Your task to perform on an android device: View the shopping cart on walmart. Search for "macbook pro 13 inch" on walmart, select the first entry, and add it to the cart. Image 0: 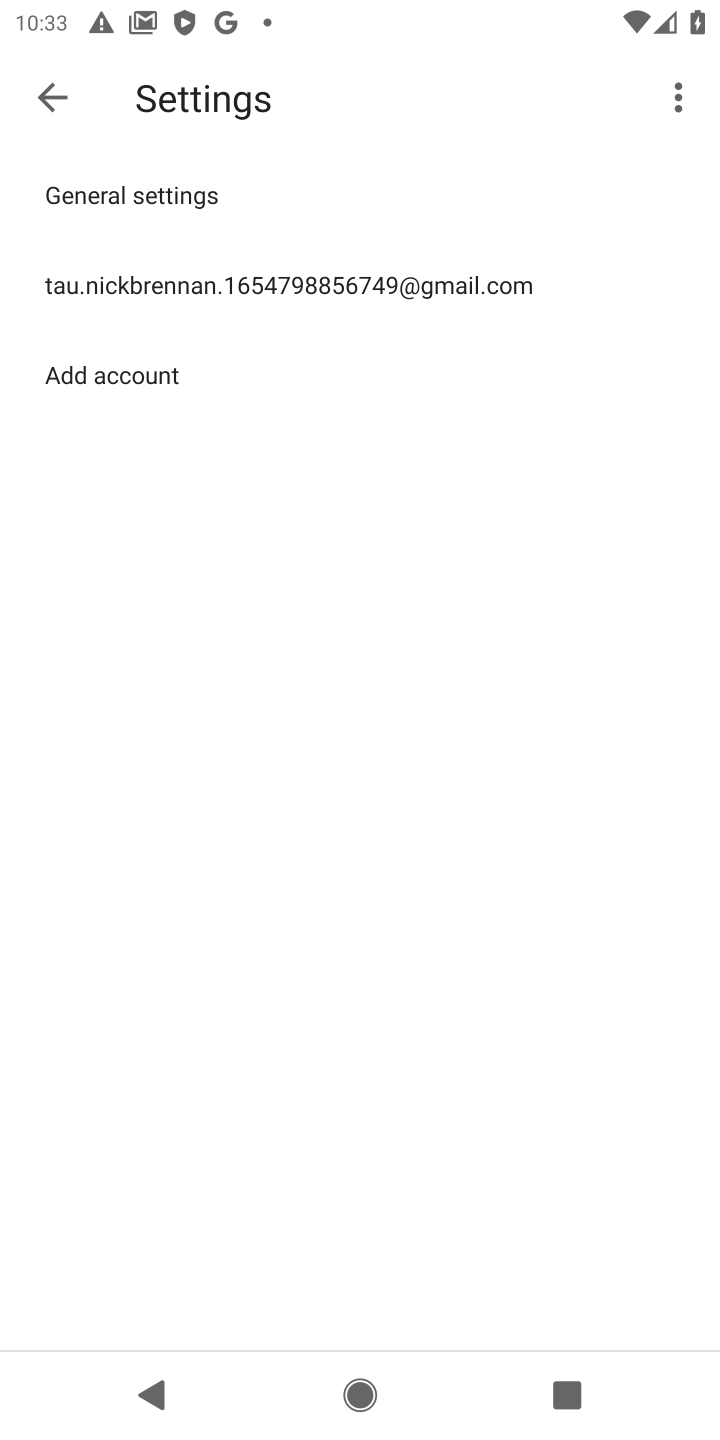
Step 0: press home button
Your task to perform on an android device: View the shopping cart on walmart. Search for "macbook pro 13 inch" on walmart, select the first entry, and add it to the cart. Image 1: 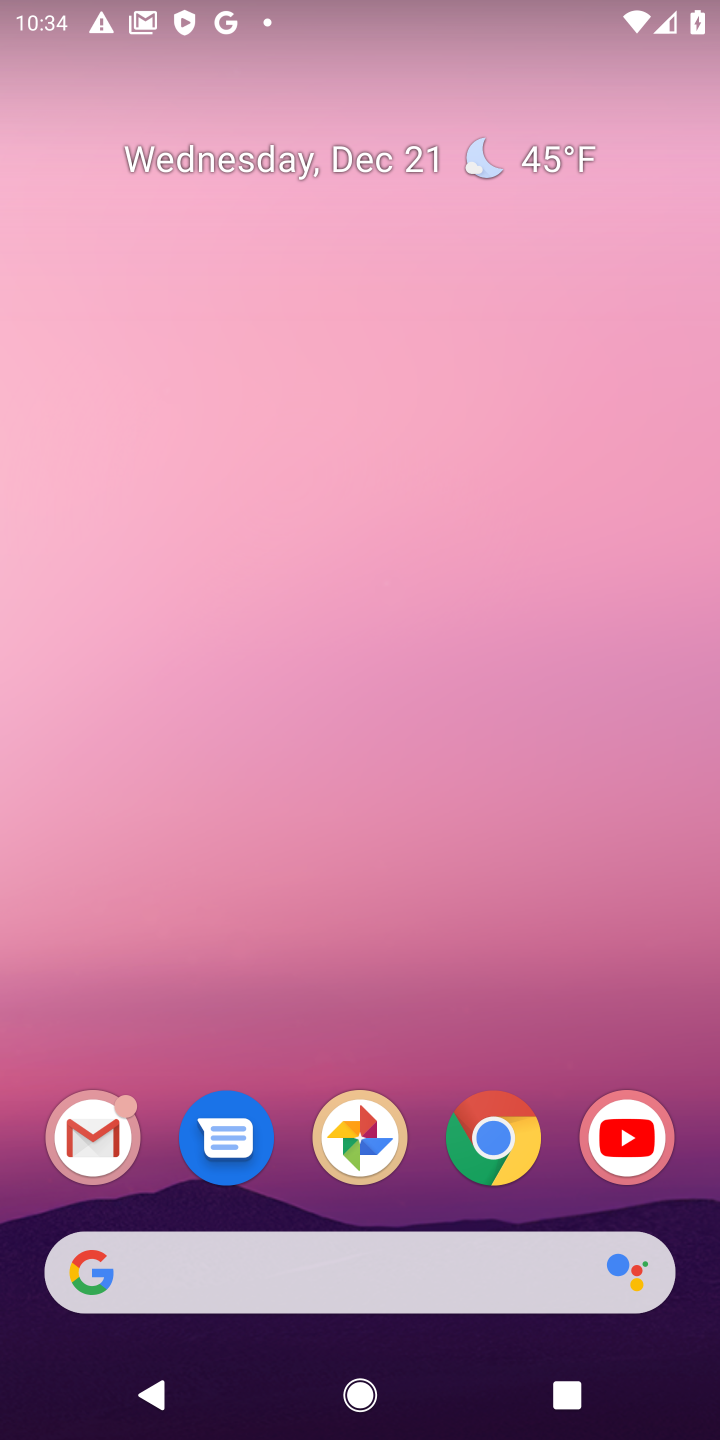
Step 1: click (493, 1141)
Your task to perform on an android device: View the shopping cart on walmart. Search for "macbook pro 13 inch" on walmart, select the first entry, and add it to the cart. Image 2: 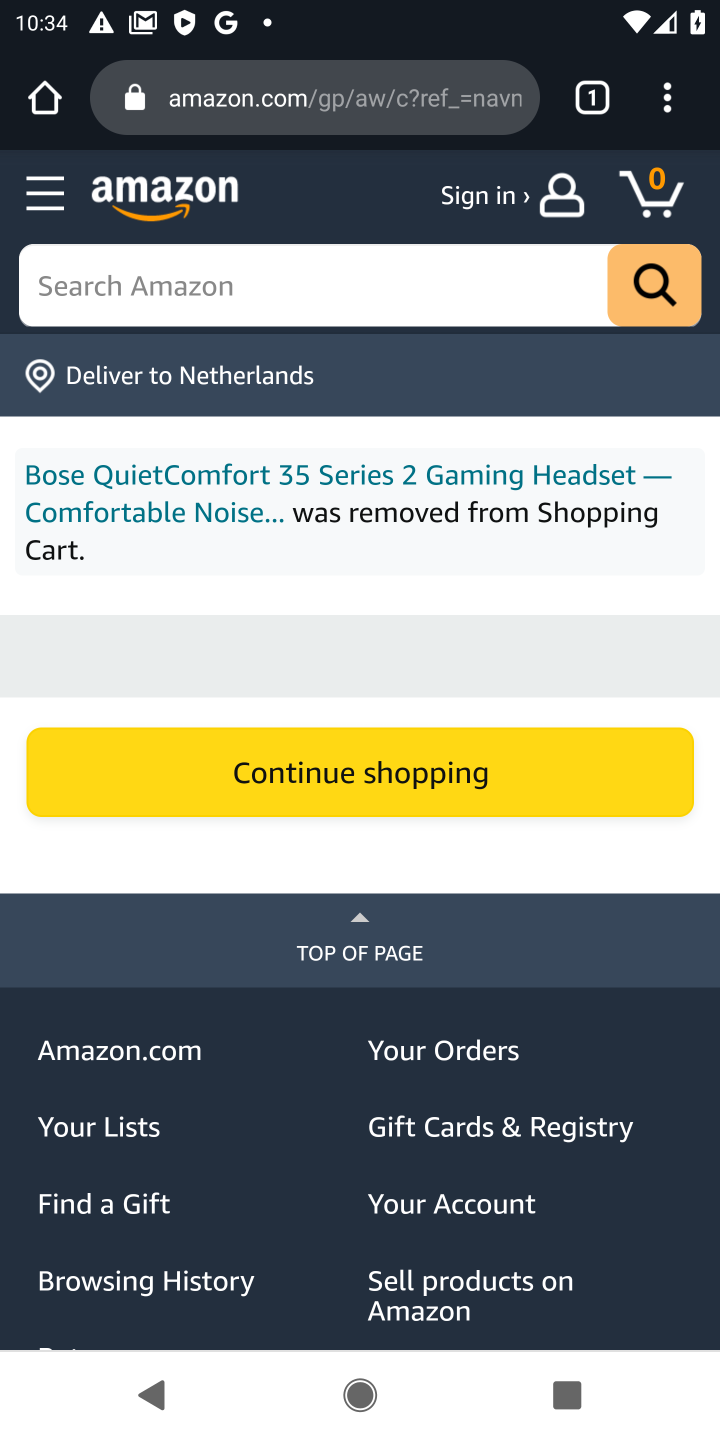
Step 2: click (291, 106)
Your task to perform on an android device: View the shopping cart on walmart. Search for "macbook pro 13 inch" on walmart, select the first entry, and add it to the cart. Image 3: 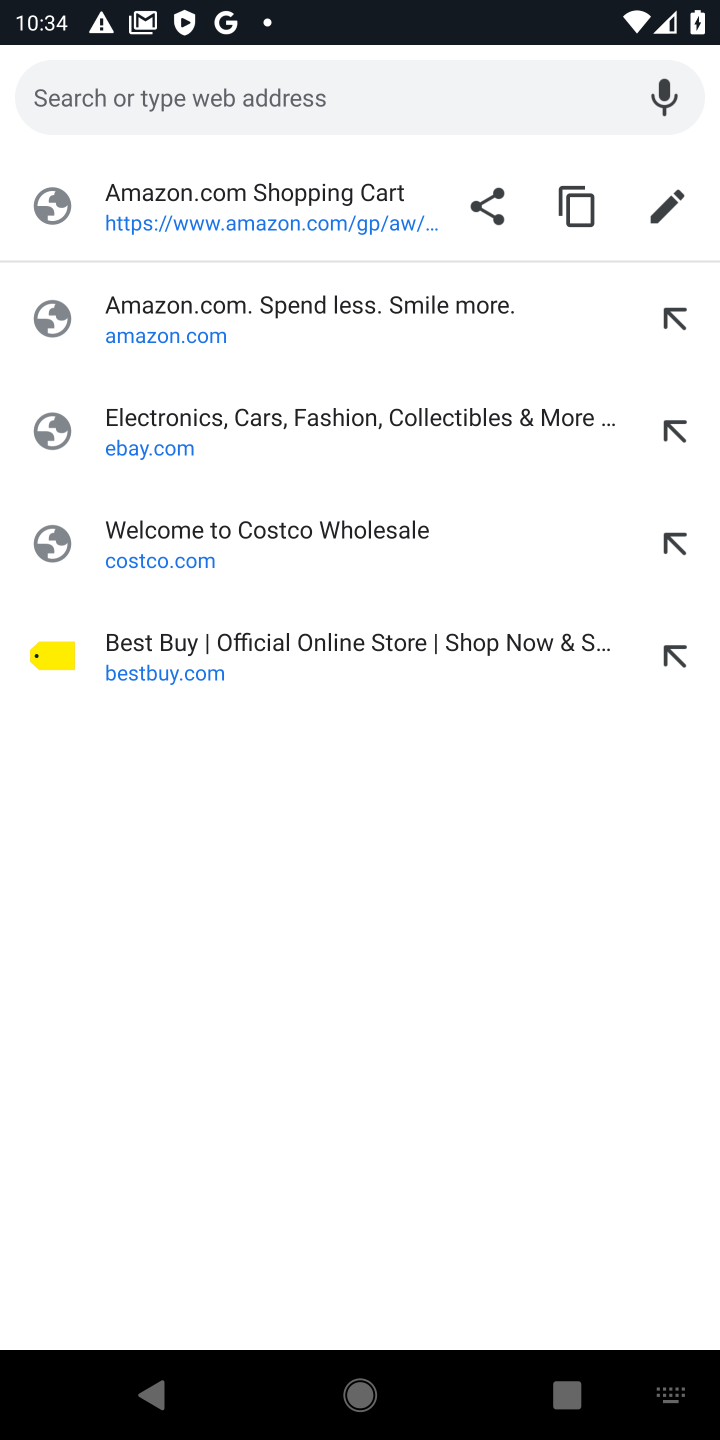
Step 3: type "walmart.com"
Your task to perform on an android device: View the shopping cart on walmart. Search for "macbook pro 13 inch" on walmart, select the first entry, and add it to the cart. Image 4: 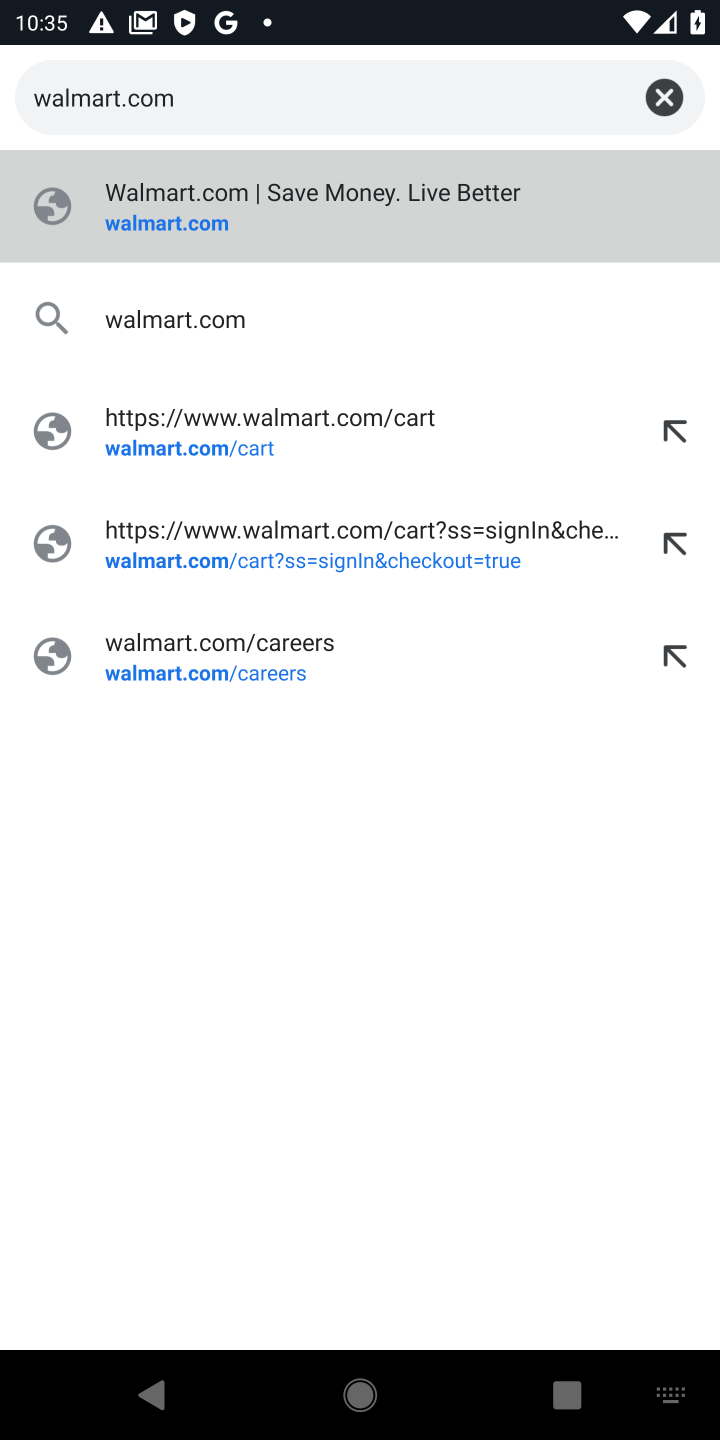
Step 4: click (188, 233)
Your task to perform on an android device: View the shopping cart on walmart. Search for "macbook pro 13 inch" on walmart, select the first entry, and add it to the cart. Image 5: 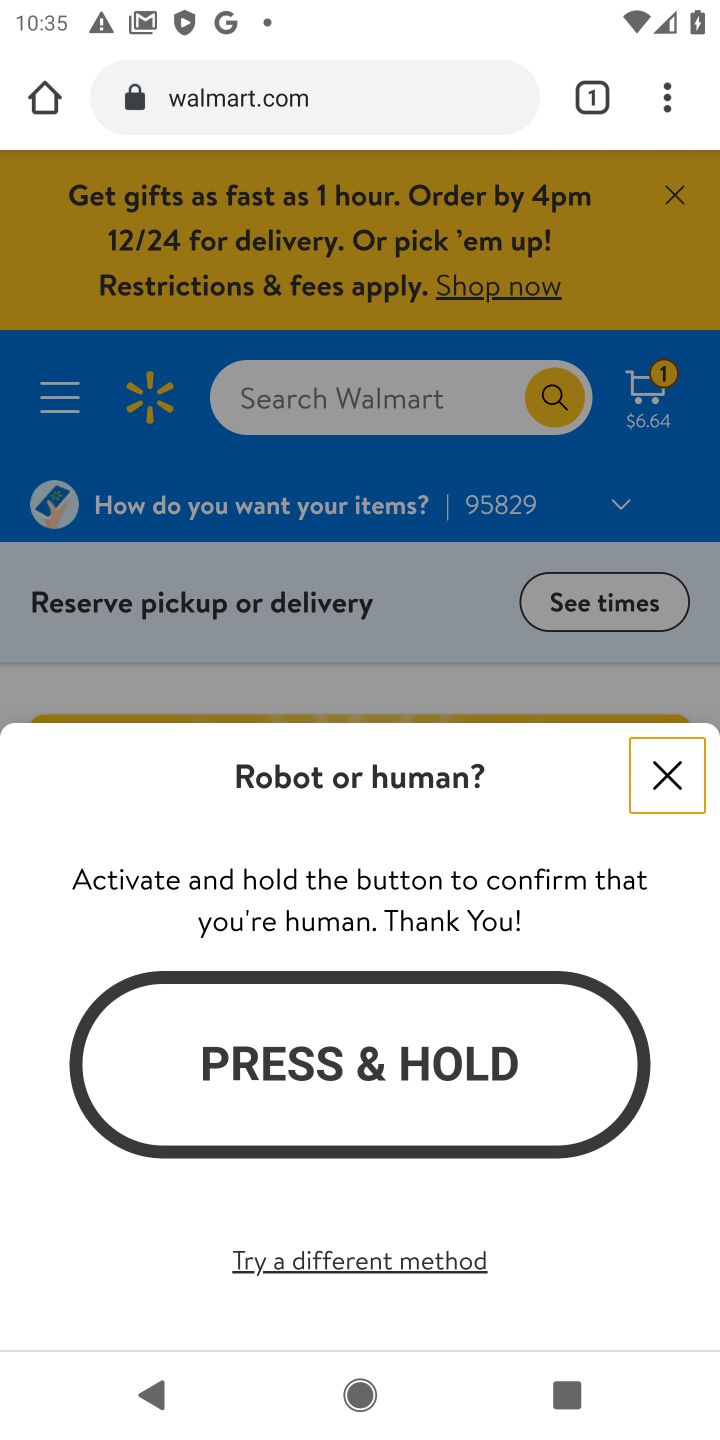
Step 5: click (314, 1273)
Your task to perform on an android device: View the shopping cart on walmart. Search for "macbook pro 13 inch" on walmart, select the first entry, and add it to the cart. Image 6: 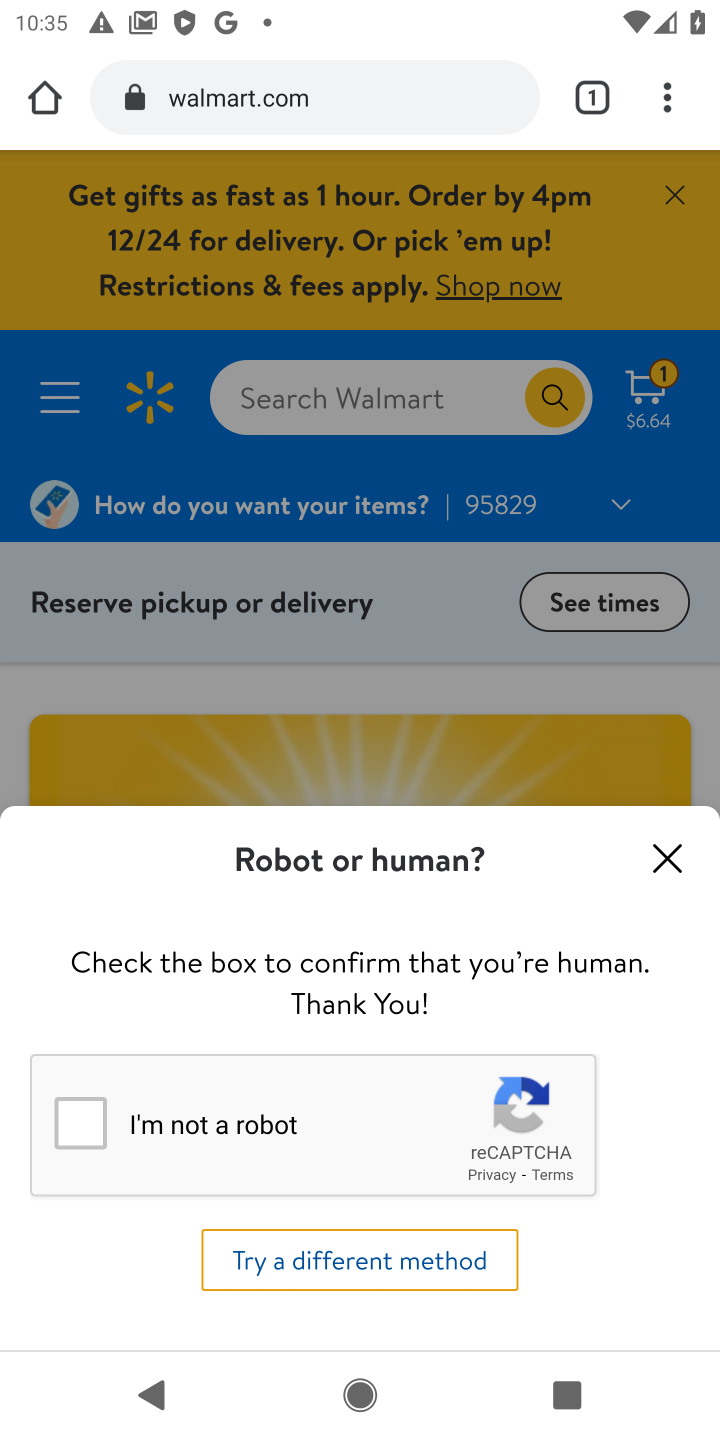
Step 6: click (92, 1124)
Your task to perform on an android device: View the shopping cart on walmart. Search for "macbook pro 13 inch" on walmart, select the first entry, and add it to the cart. Image 7: 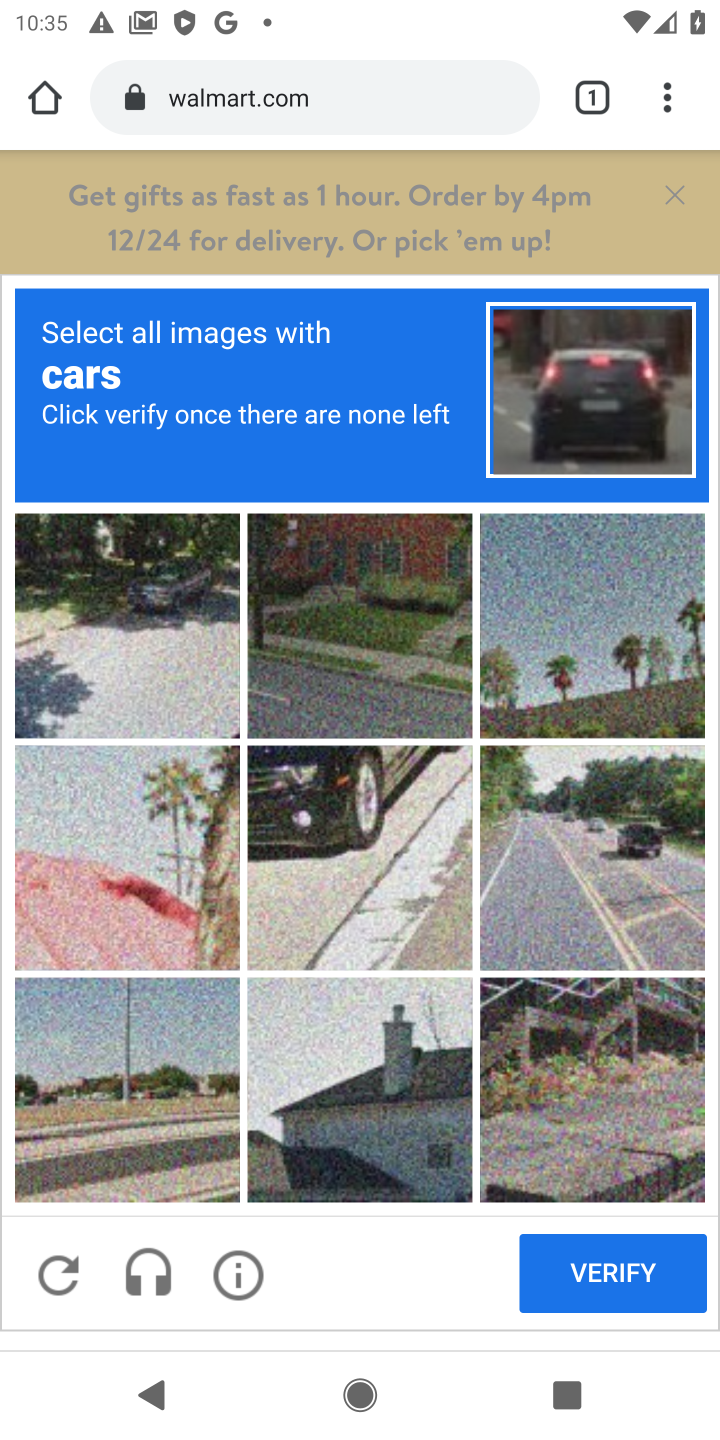
Step 7: click (176, 608)
Your task to perform on an android device: View the shopping cart on walmart. Search for "macbook pro 13 inch" on walmart, select the first entry, and add it to the cart. Image 8: 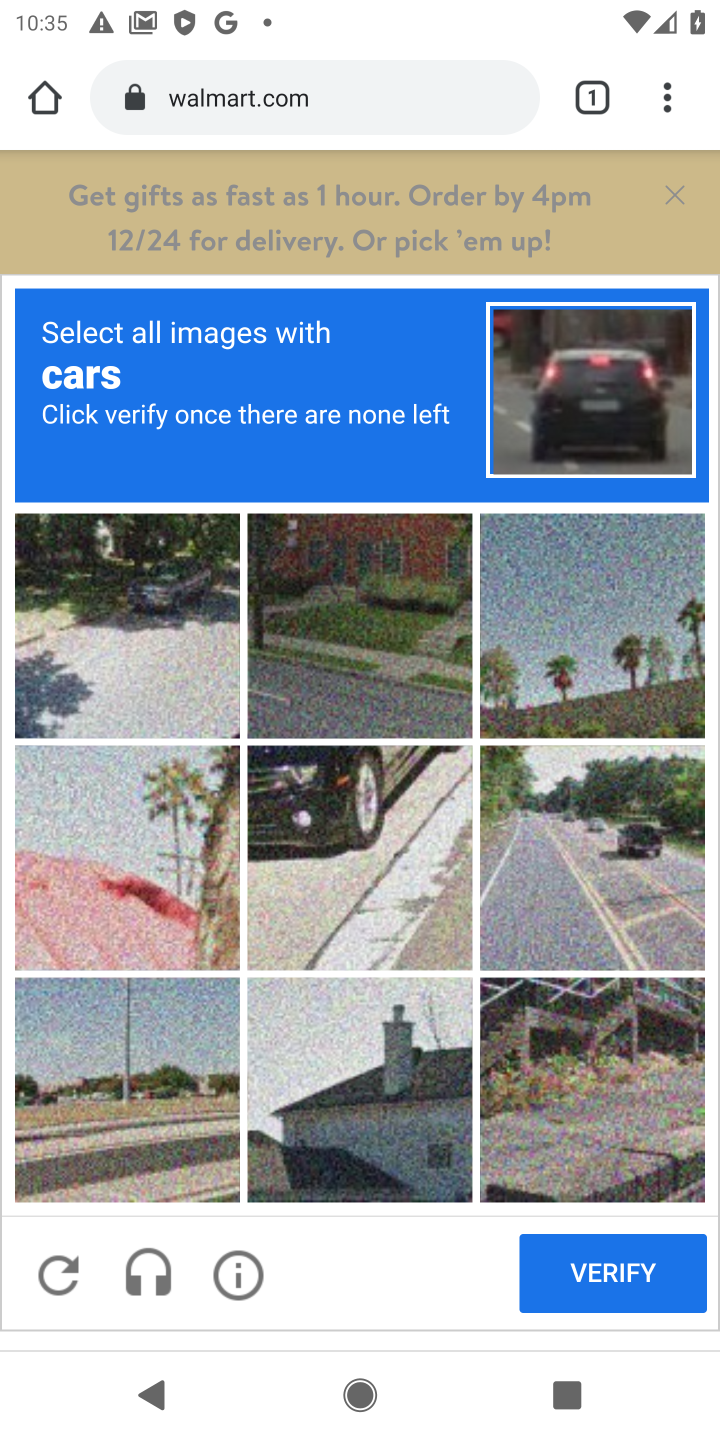
Step 8: click (329, 844)
Your task to perform on an android device: View the shopping cart on walmart. Search for "macbook pro 13 inch" on walmart, select the first entry, and add it to the cart. Image 9: 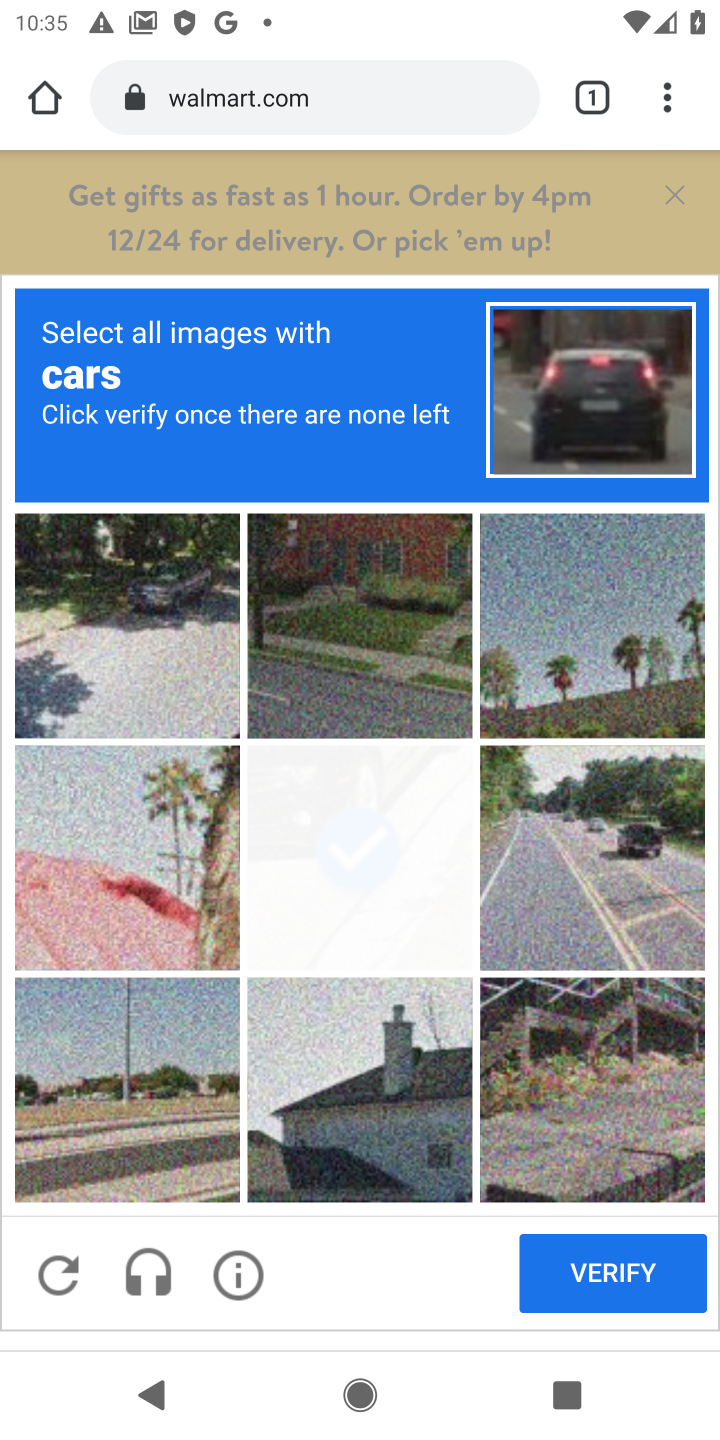
Step 9: click (135, 587)
Your task to perform on an android device: View the shopping cart on walmart. Search for "macbook pro 13 inch" on walmart, select the first entry, and add it to the cart. Image 10: 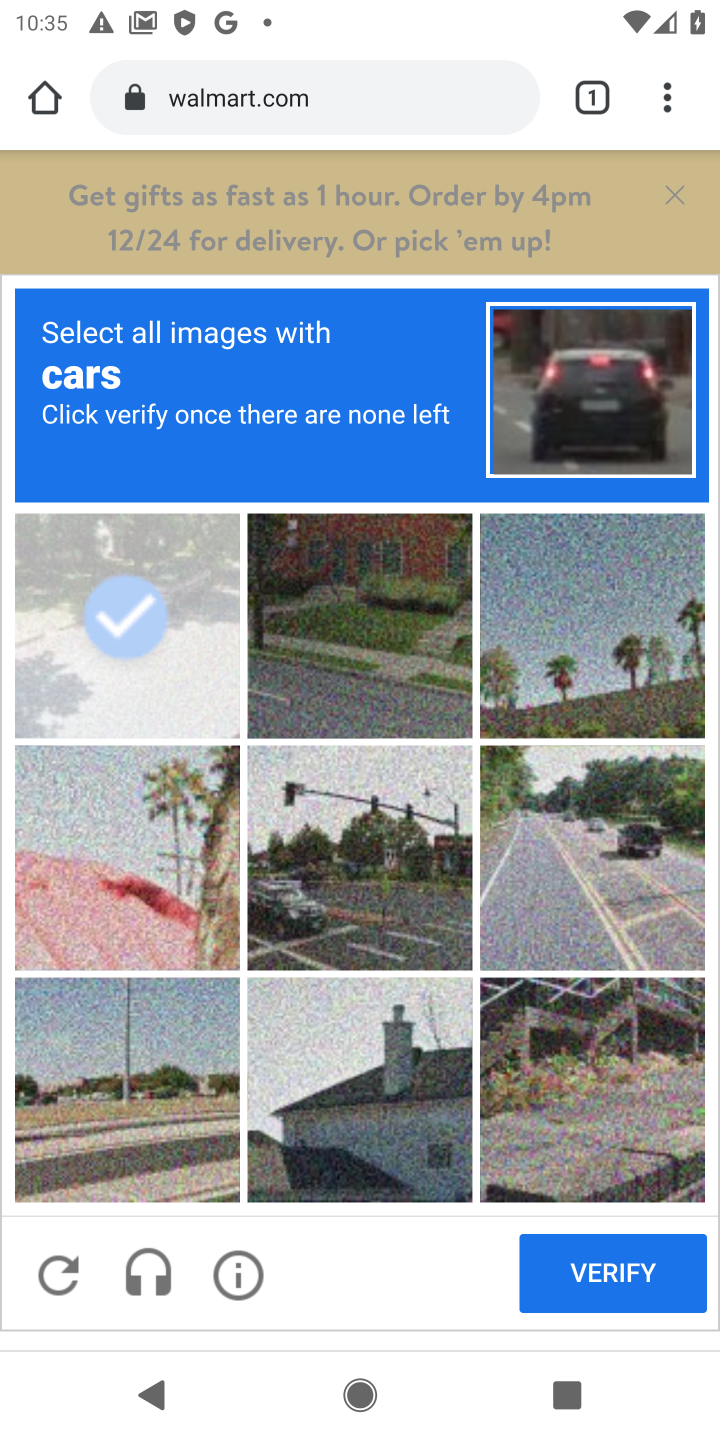
Step 10: click (658, 849)
Your task to perform on an android device: View the shopping cart on walmart. Search for "macbook pro 13 inch" on walmart, select the first entry, and add it to the cart. Image 11: 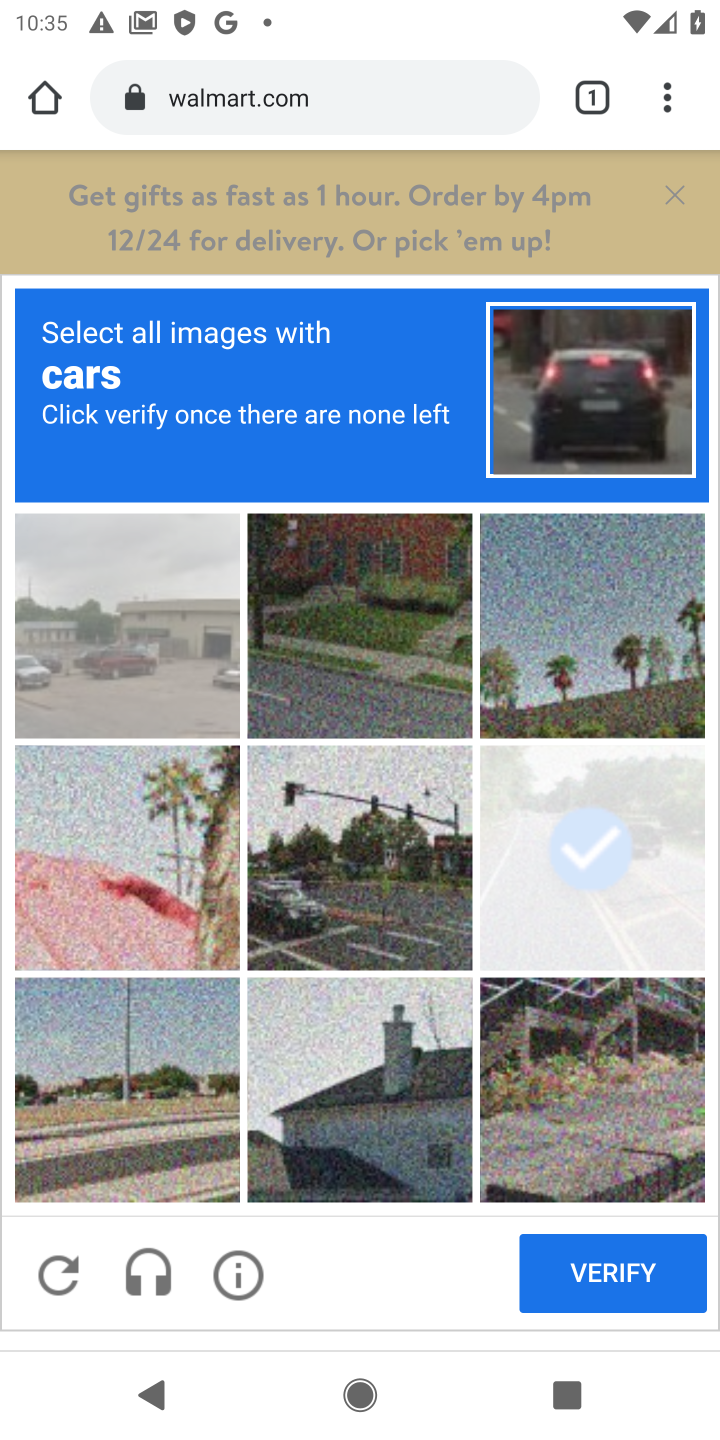
Step 11: click (315, 896)
Your task to perform on an android device: View the shopping cart on walmart. Search for "macbook pro 13 inch" on walmart, select the first entry, and add it to the cart. Image 12: 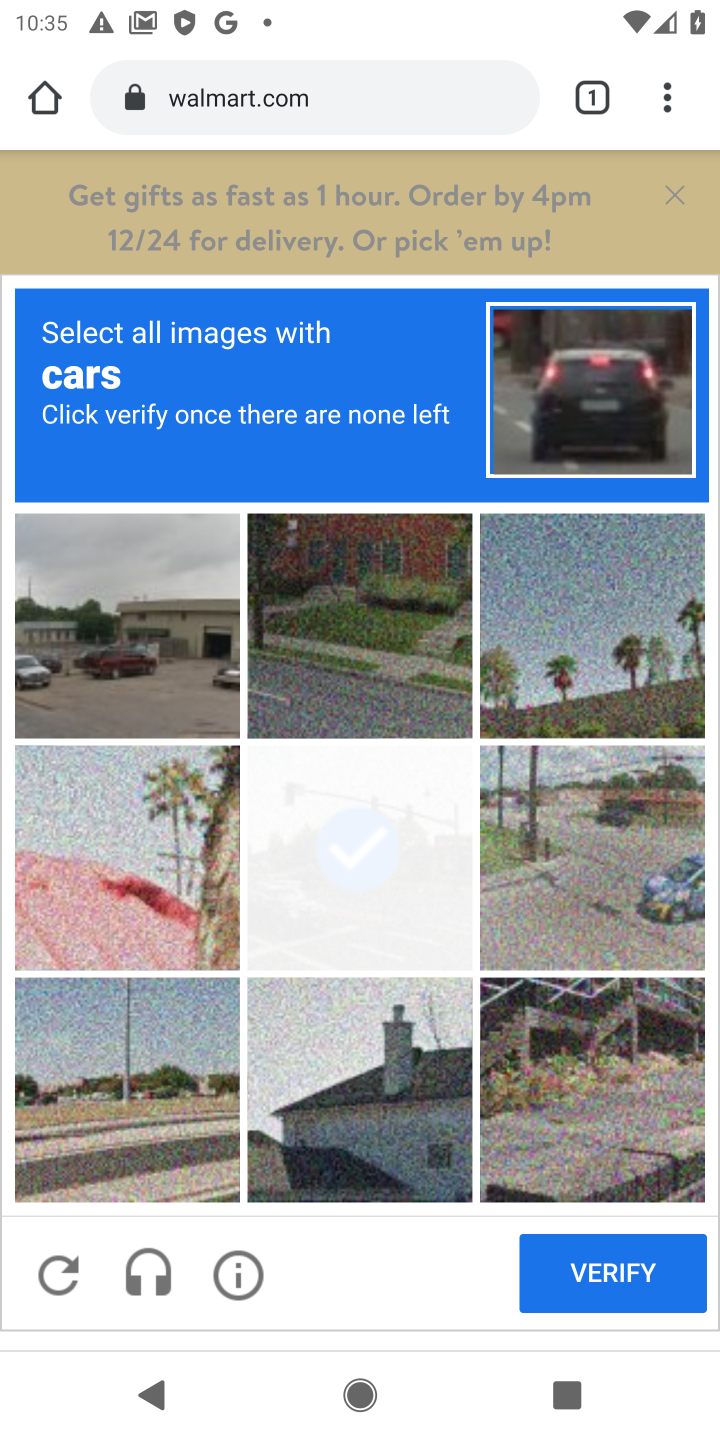
Step 12: click (74, 650)
Your task to perform on an android device: View the shopping cart on walmart. Search for "macbook pro 13 inch" on walmart, select the first entry, and add it to the cart. Image 13: 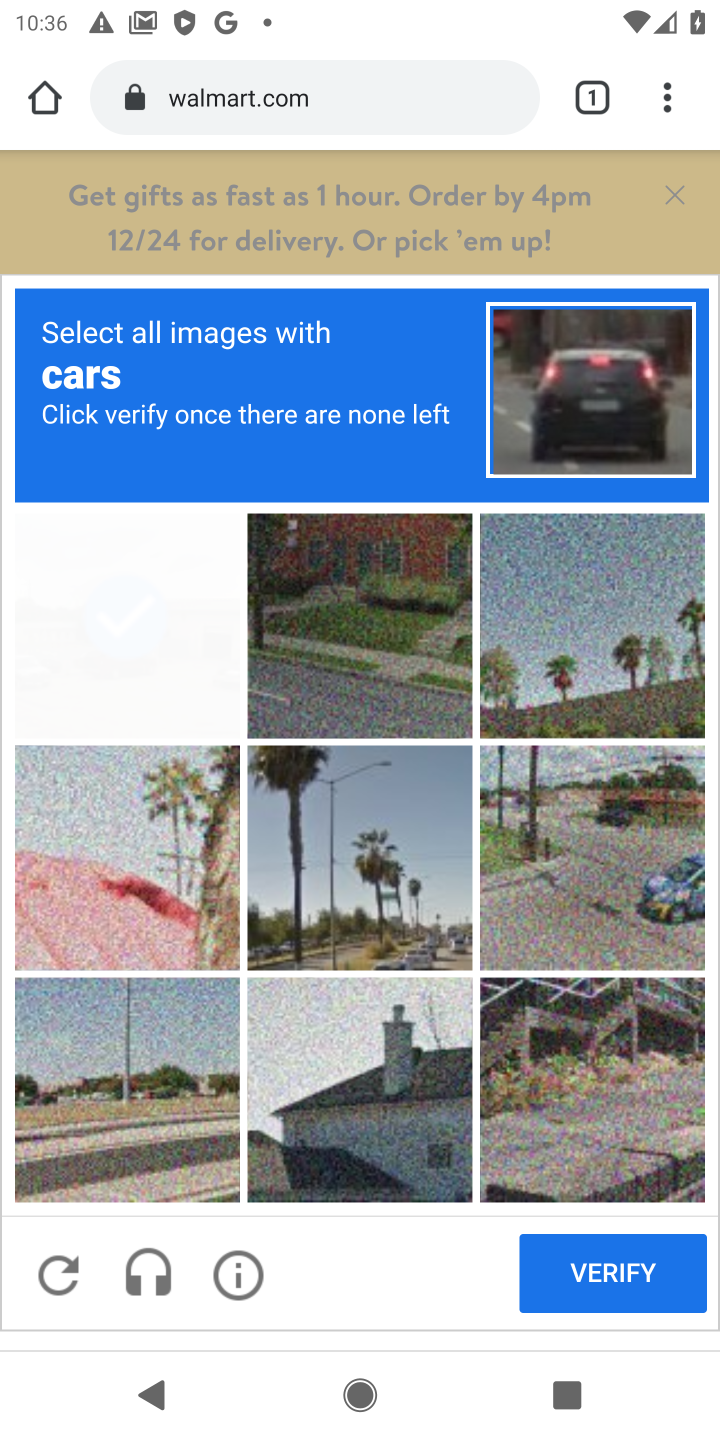
Step 13: click (629, 899)
Your task to perform on an android device: View the shopping cart on walmart. Search for "macbook pro 13 inch" on walmart, select the first entry, and add it to the cart. Image 14: 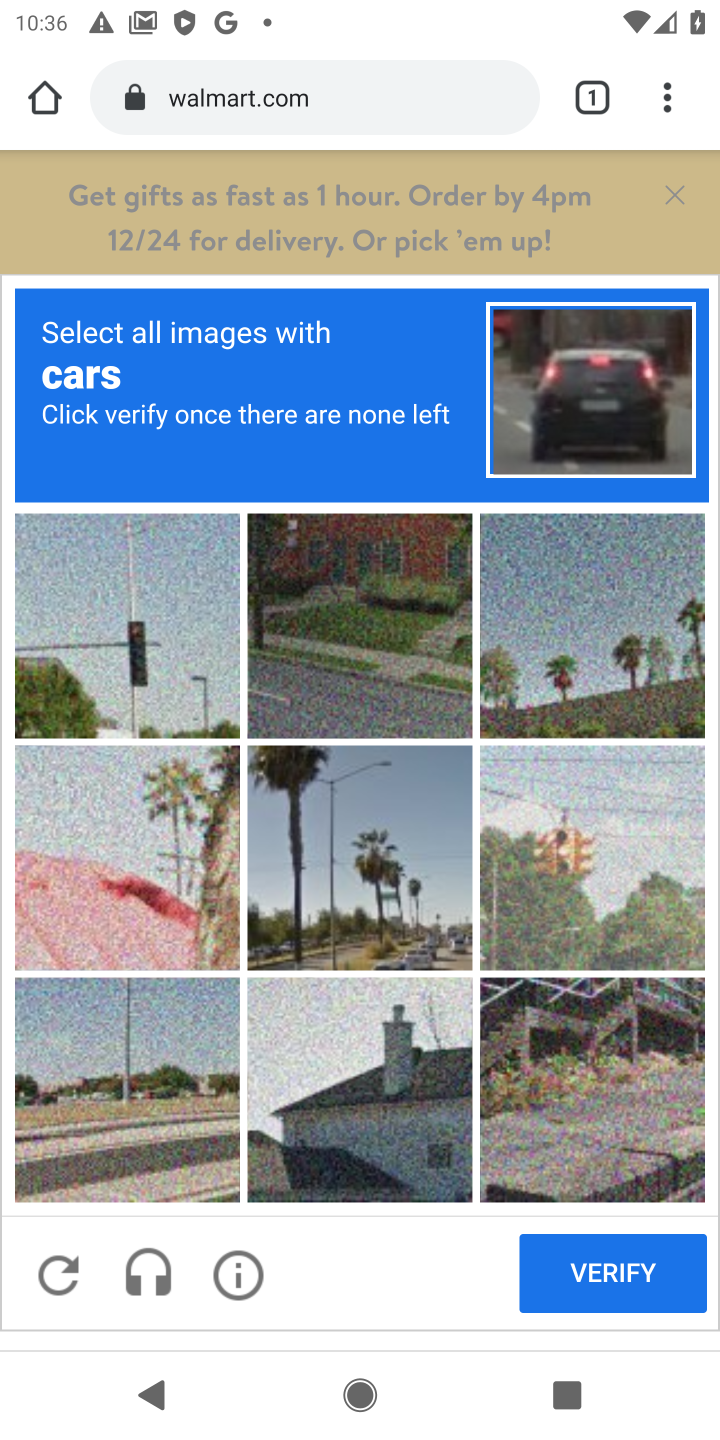
Step 14: click (390, 936)
Your task to perform on an android device: View the shopping cart on walmart. Search for "macbook pro 13 inch" on walmart, select the first entry, and add it to the cart. Image 15: 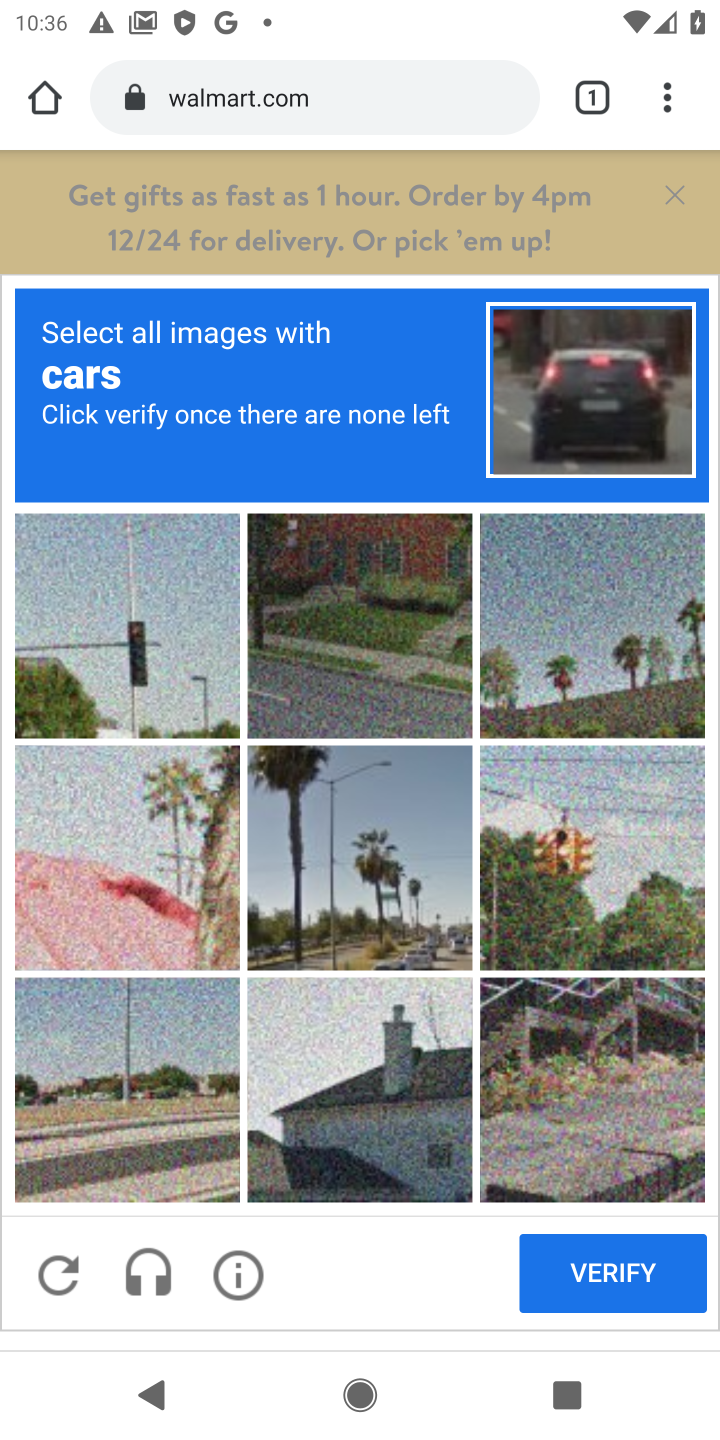
Step 15: click (368, 886)
Your task to perform on an android device: View the shopping cart on walmart. Search for "macbook pro 13 inch" on walmart, select the first entry, and add it to the cart. Image 16: 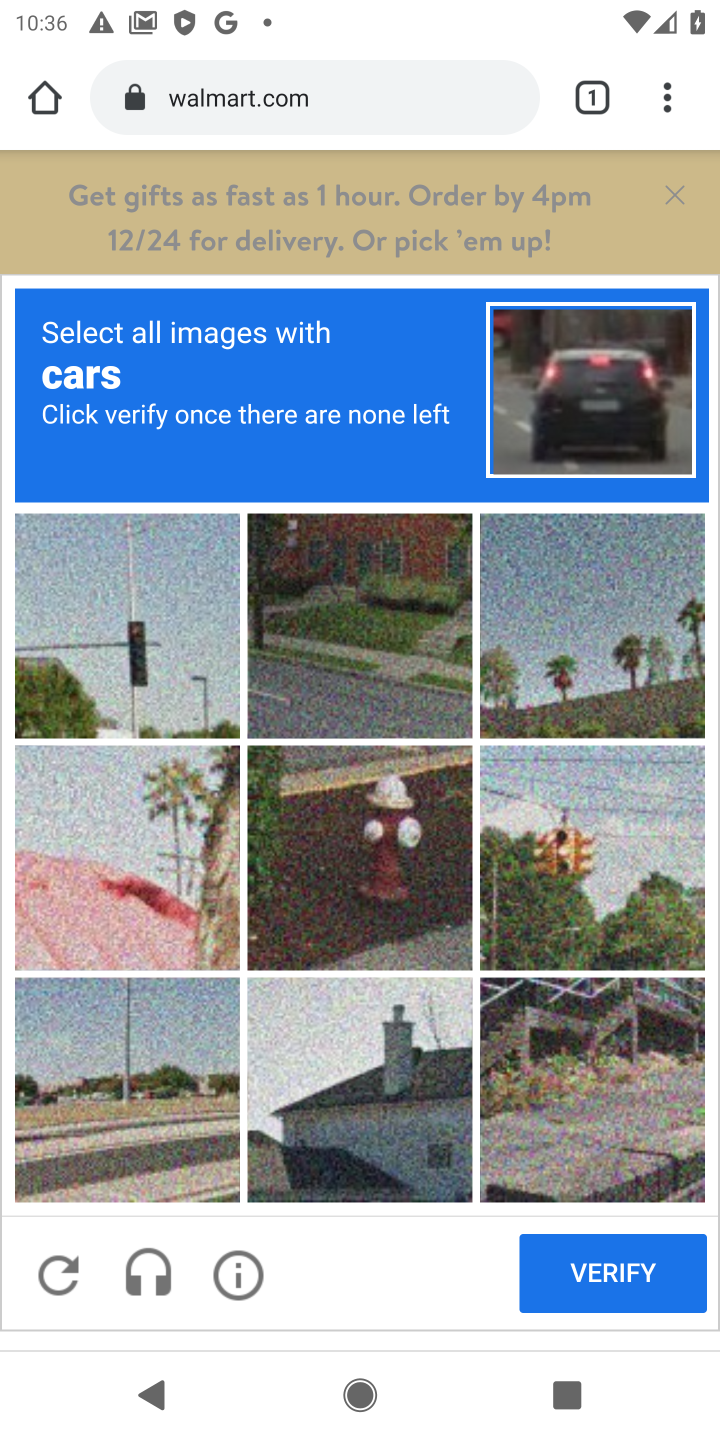
Step 16: click (409, 672)
Your task to perform on an android device: View the shopping cart on walmart. Search for "macbook pro 13 inch" on walmart, select the first entry, and add it to the cart. Image 17: 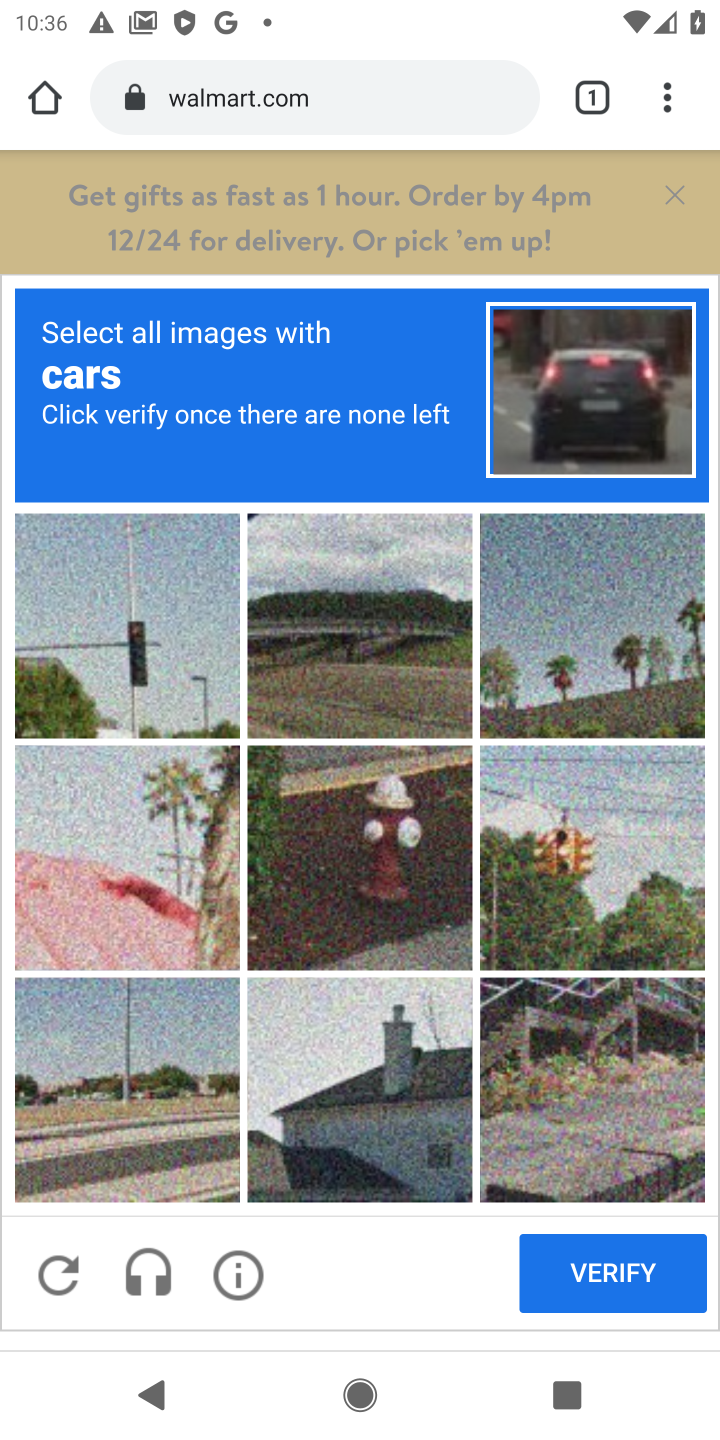
Step 17: click (628, 1276)
Your task to perform on an android device: View the shopping cart on walmart. Search for "macbook pro 13 inch" on walmart, select the first entry, and add it to the cart. Image 18: 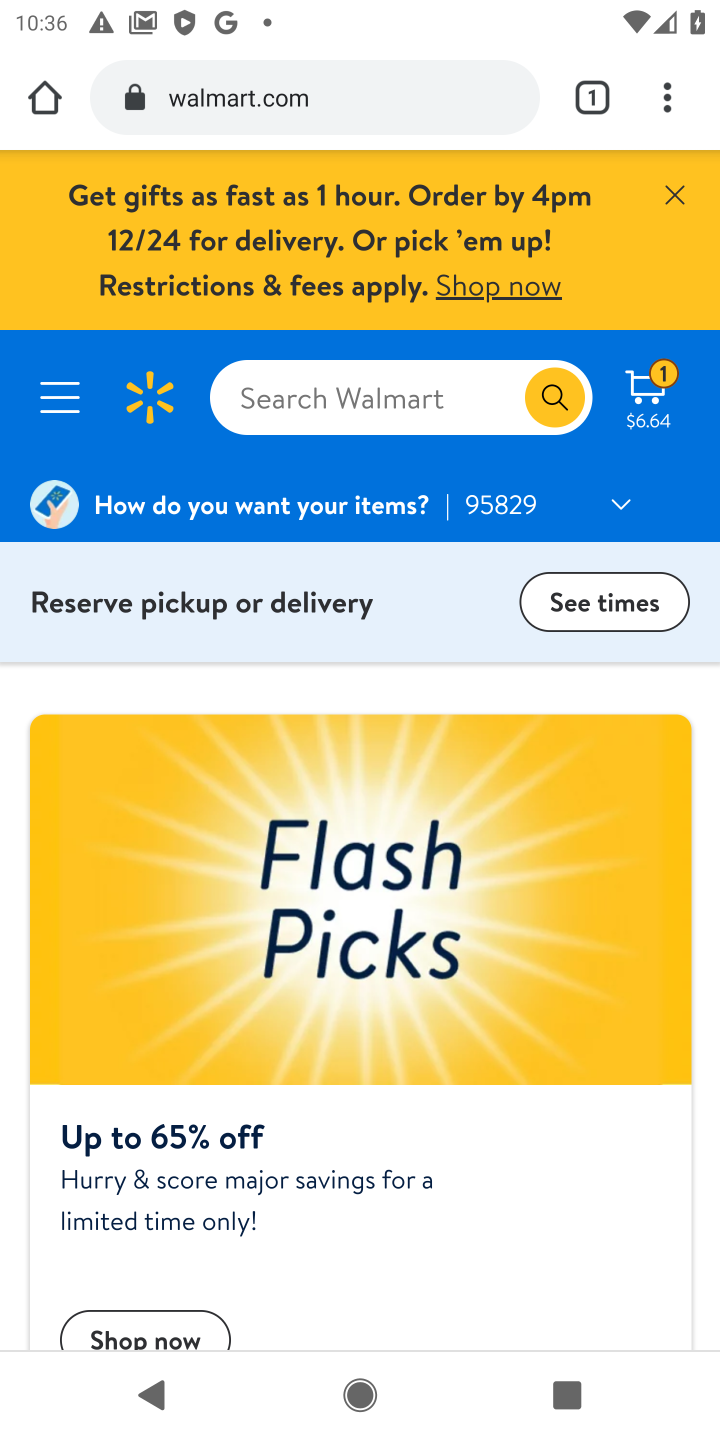
Step 18: click (639, 407)
Your task to perform on an android device: View the shopping cart on walmart. Search for "macbook pro 13 inch" on walmart, select the first entry, and add it to the cart. Image 19: 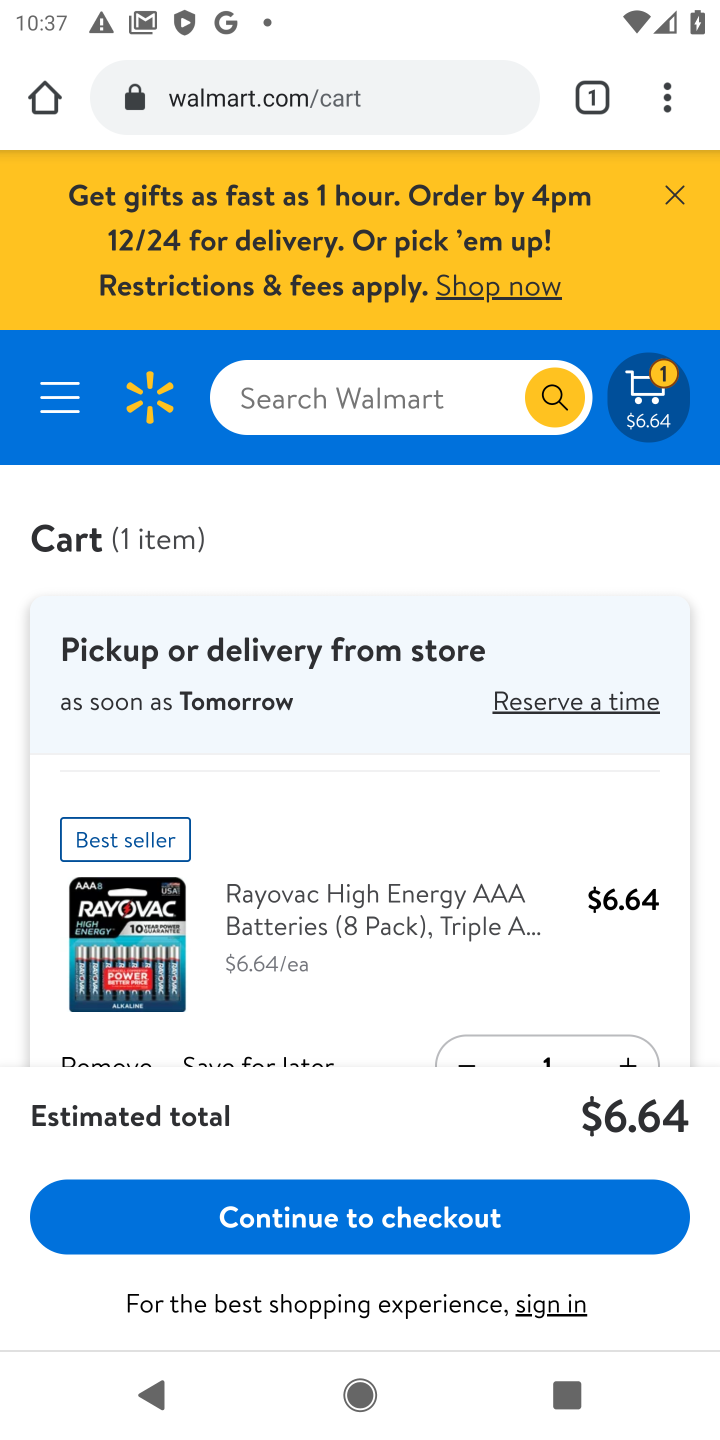
Step 19: click (265, 406)
Your task to perform on an android device: View the shopping cart on walmart. Search for "macbook pro 13 inch" on walmart, select the first entry, and add it to the cart. Image 20: 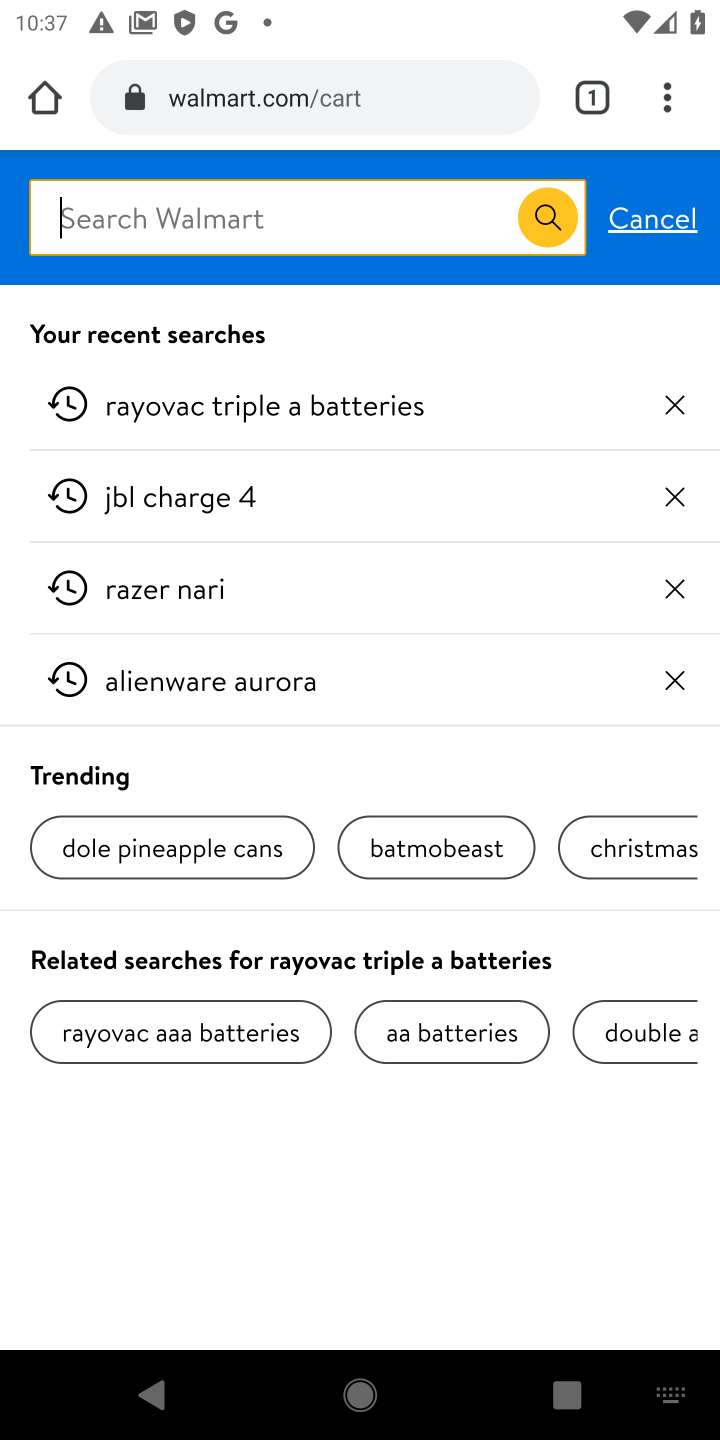
Step 20: type "macbook pro 13 inch"
Your task to perform on an android device: View the shopping cart on walmart. Search for "macbook pro 13 inch" on walmart, select the first entry, and add it to the cart. Image 21: 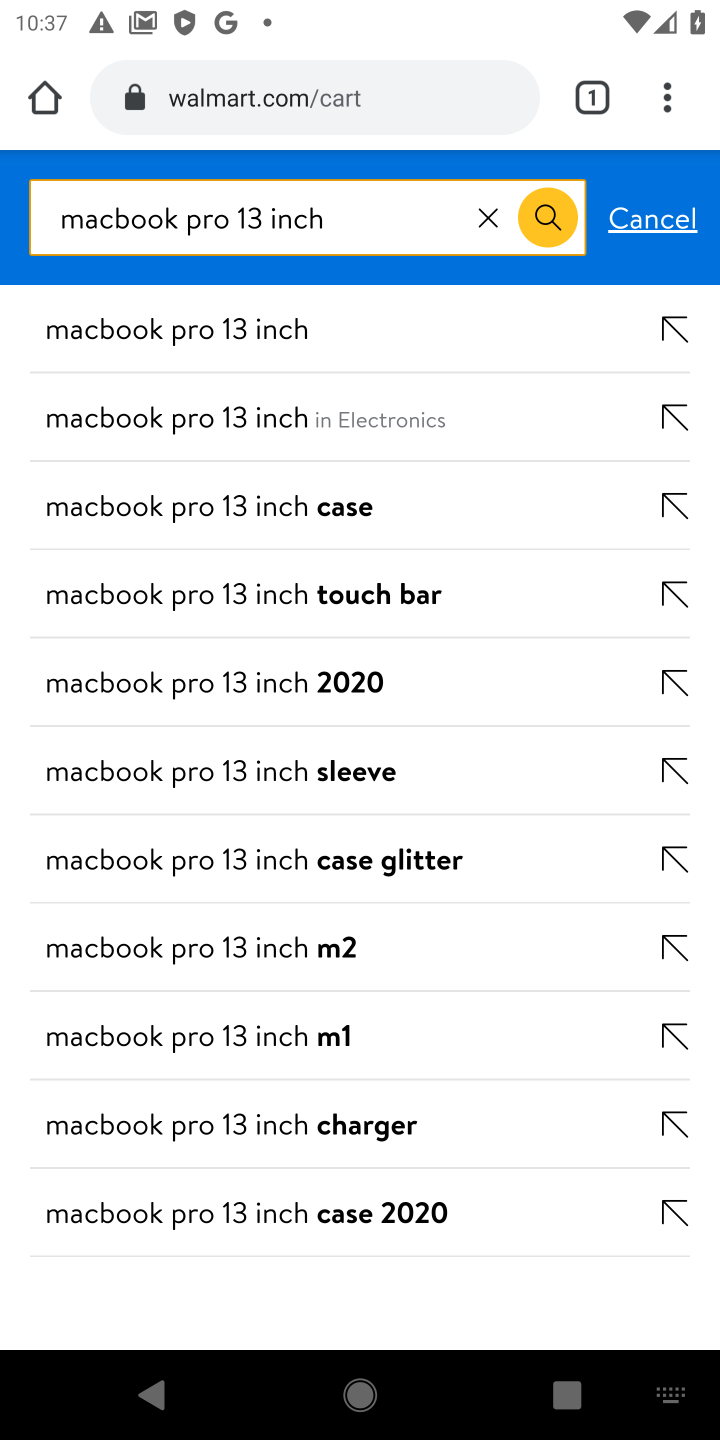
Step 21: click (141, 337)
Your task to perform on an android device: View the shopping cart on walmart. Search for "macbook pro 13 inch" on walmart, select the first entry, and add it to the cart. Image 22: 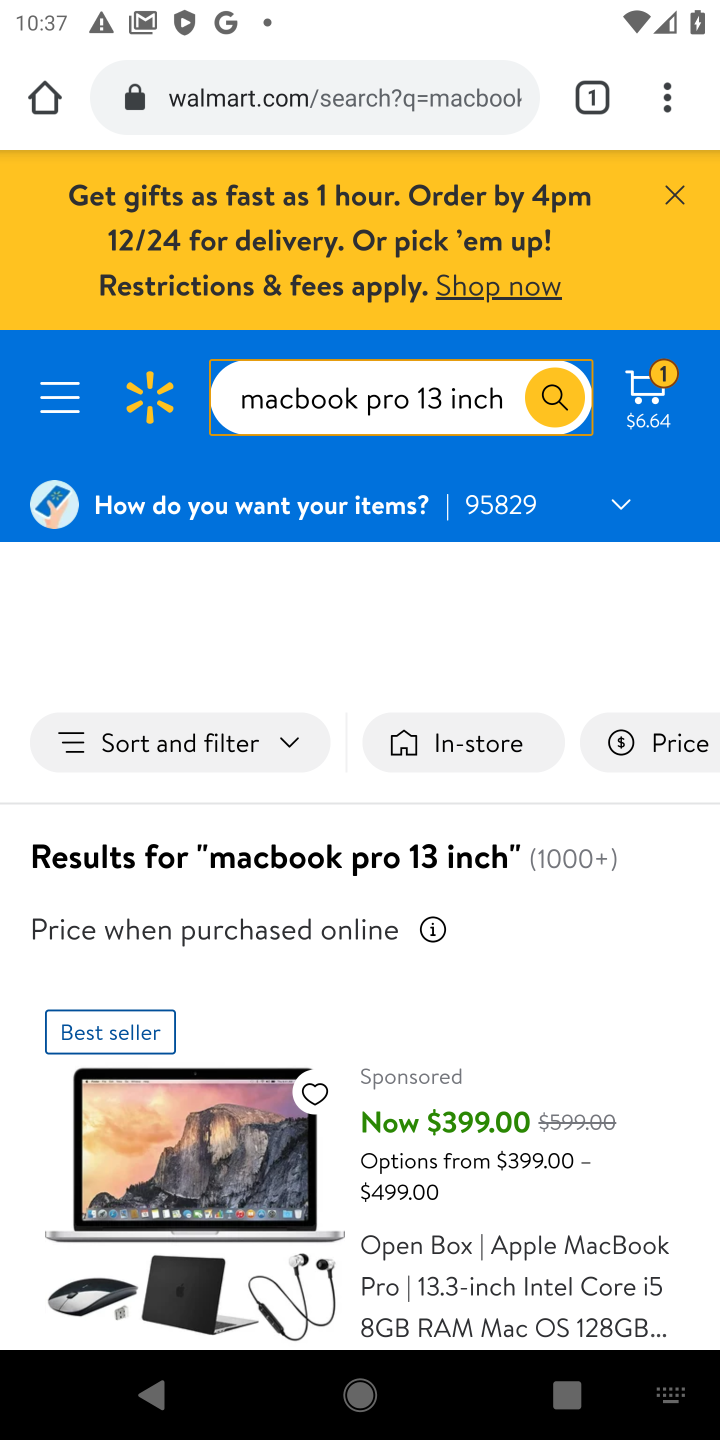
Step 22: drag from (385, 945) to (382, 630)
Your task to perform on an android device: View the shopping cart on walmart. Search for "macbook pro 13 inch" on walmart, select the first entry, and add it to the cart. Image 23: 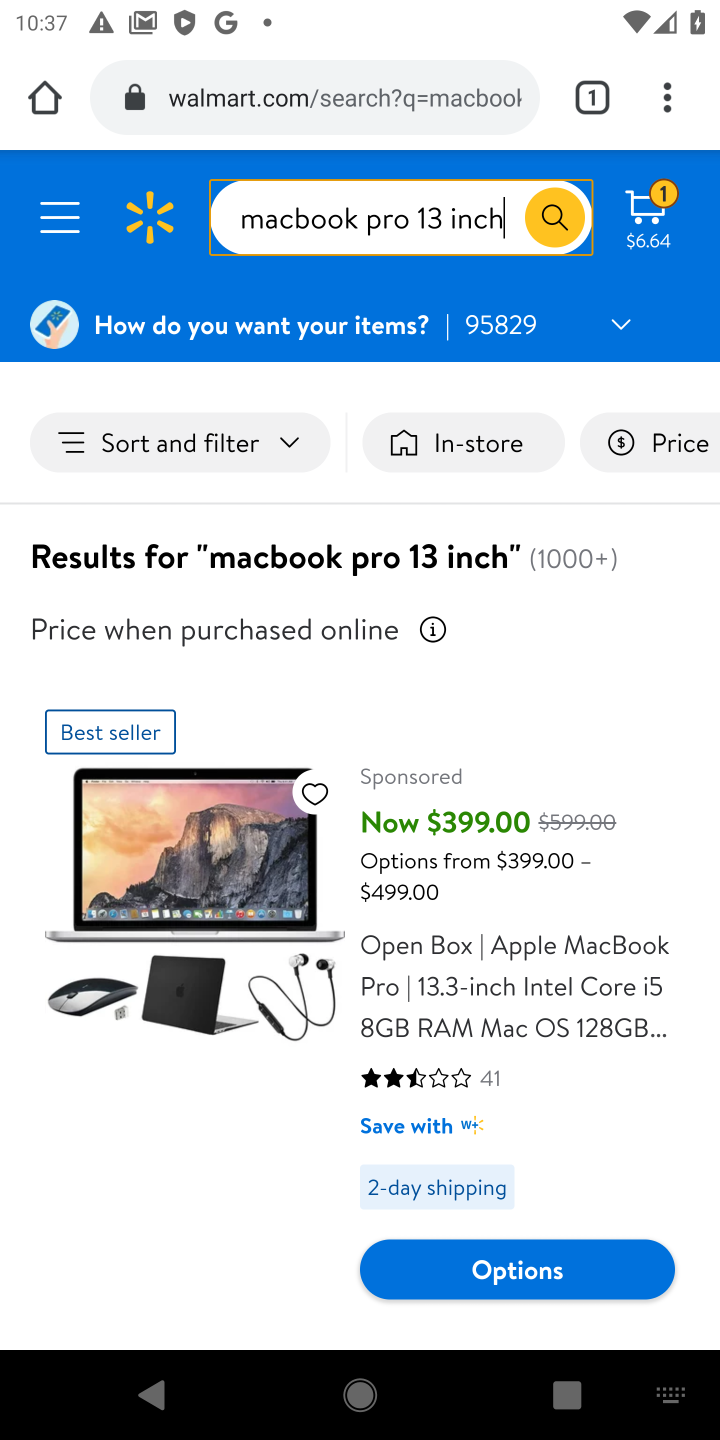
Step 23: click (495, 1011)
Your task to perform on an android device: View the shopping cart on walmart. Search for "macbook pro 13 inch" on walmart, select the first entry, and add it to the cart. Image 24: 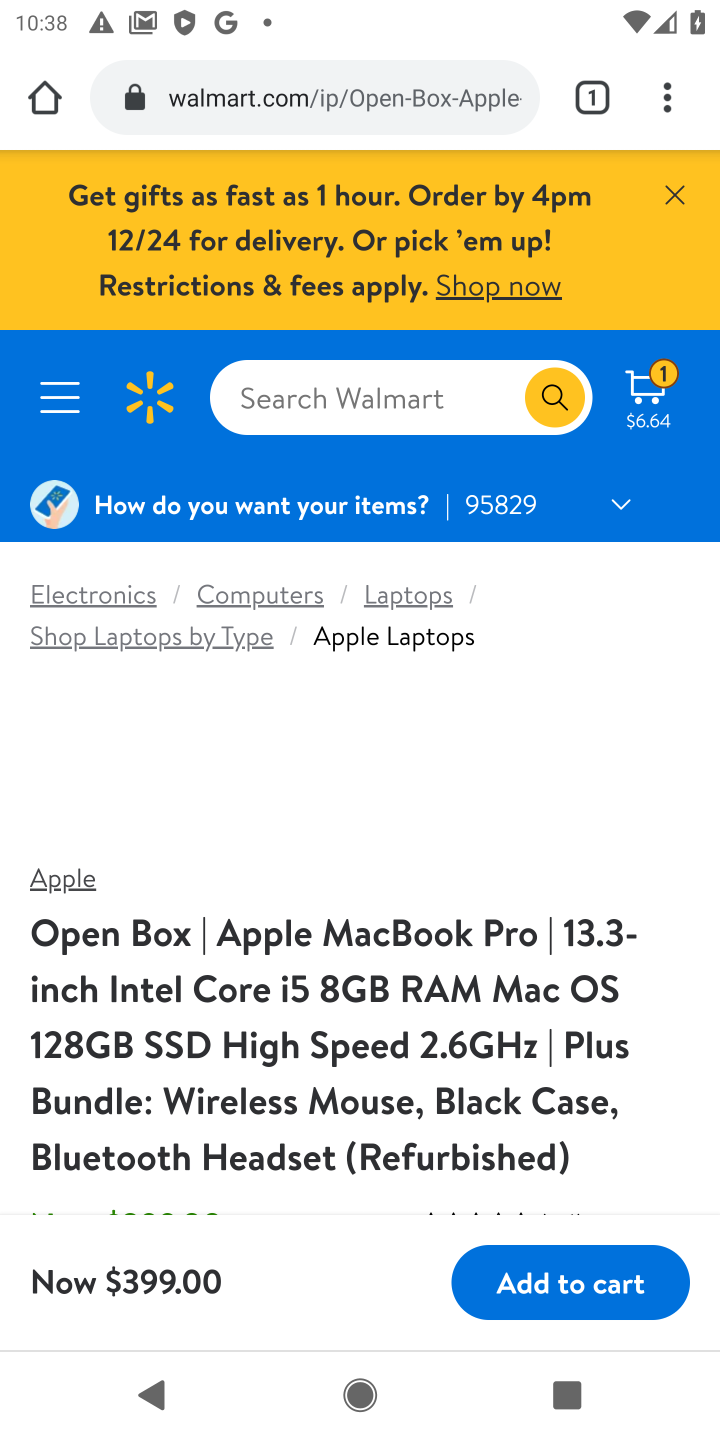
Step 24: click (572, 1266)
Your task to perform on an android device: View the shopping cart on walmart. Search for "macbook pro 13 inch" on walmart, select the first entry, and add it to the cart. Image 25: 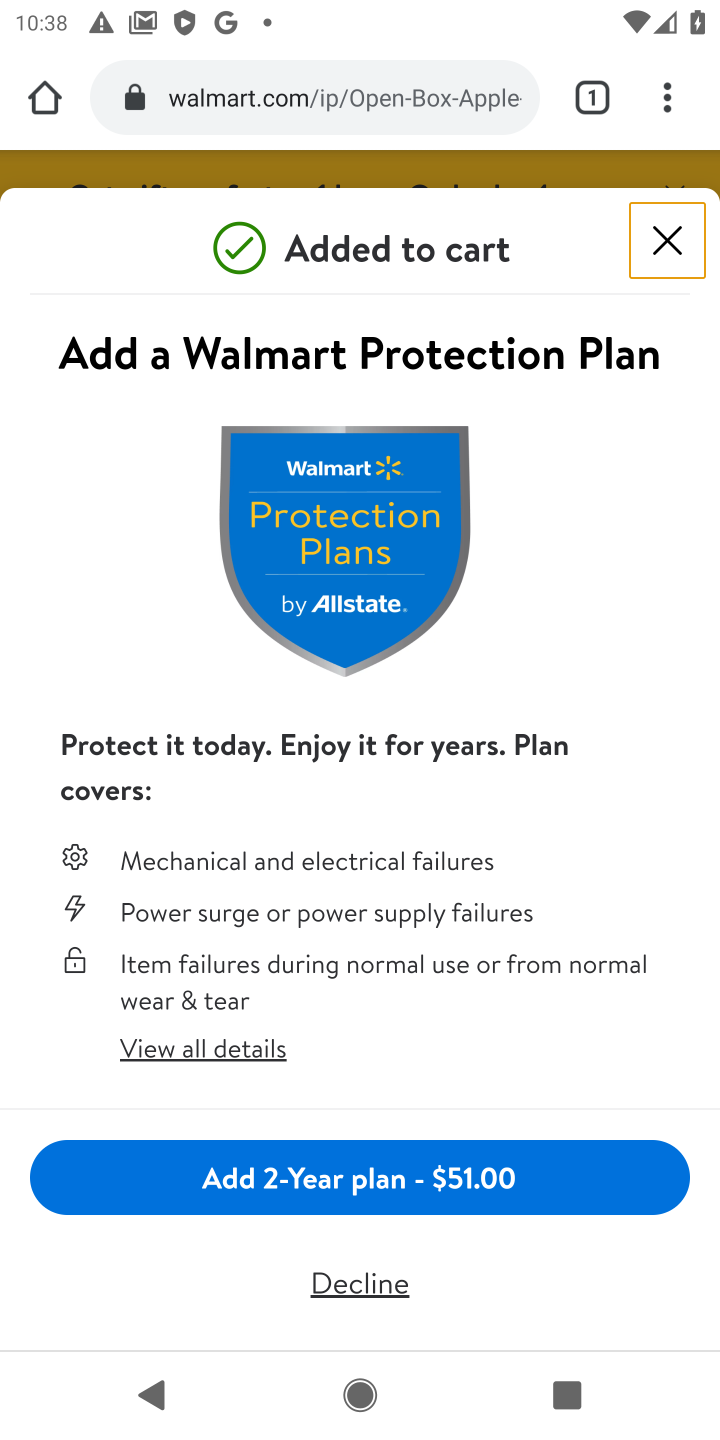
Step 25: task complete